Your task to perform on an android device: Go to battery settings Image 0: 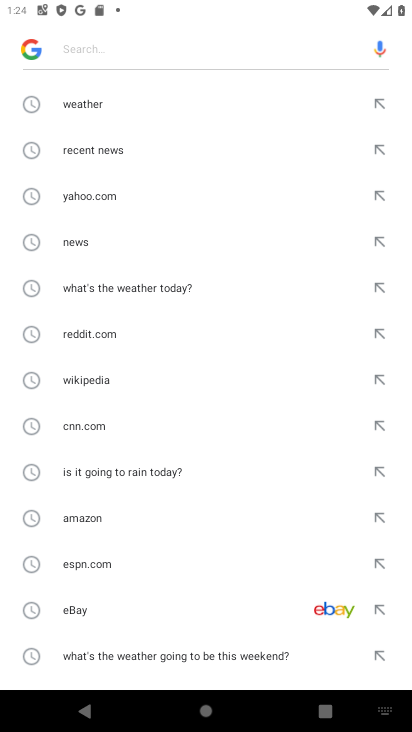
Step 0: press home button
Your task to perform on an android device: Go to battery settings Image 1: 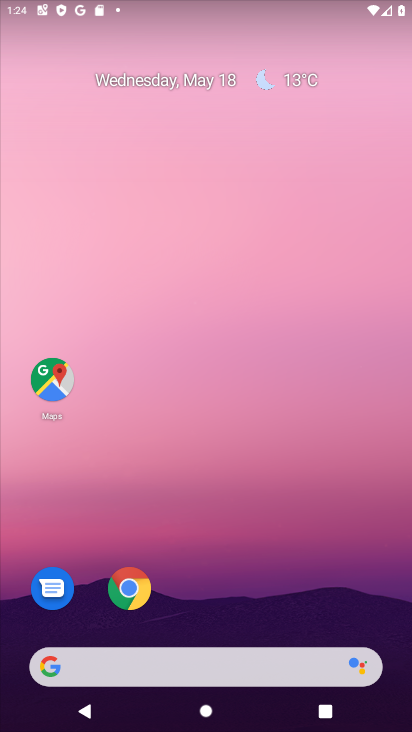
Step 1: drag from (189, 637) to (204, 34)
Your task to perform on an android device: Go to battery settings Image 2: 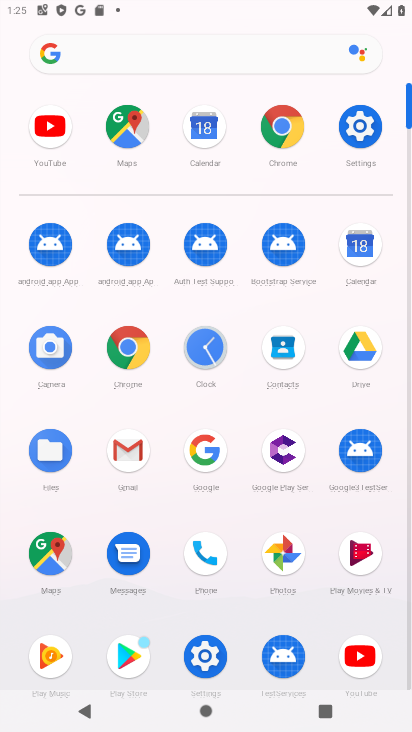
Step 2: click (368, 116)
Your task to perform on an android device: Go to battery settings Image 3: 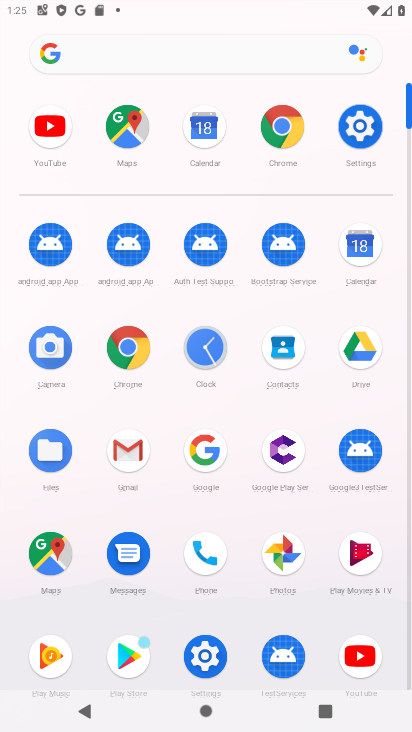
Step 3: click (368, 116)
Your task to perform on an android device: Go to battery settings Image 4: 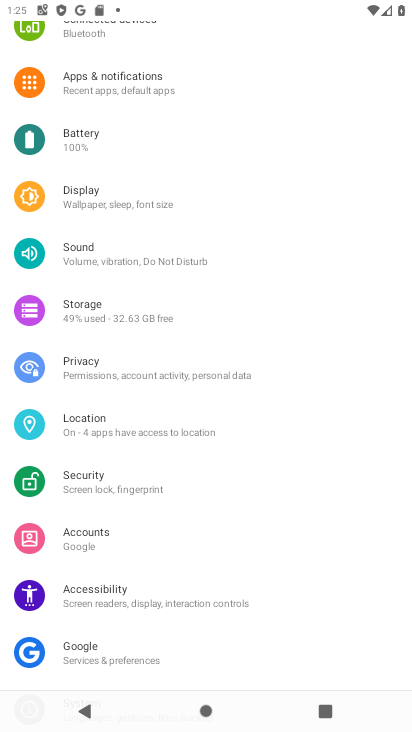
Step 4: click (89, 141)
Your task to perform on an android device: Go to battery settings Image 5: 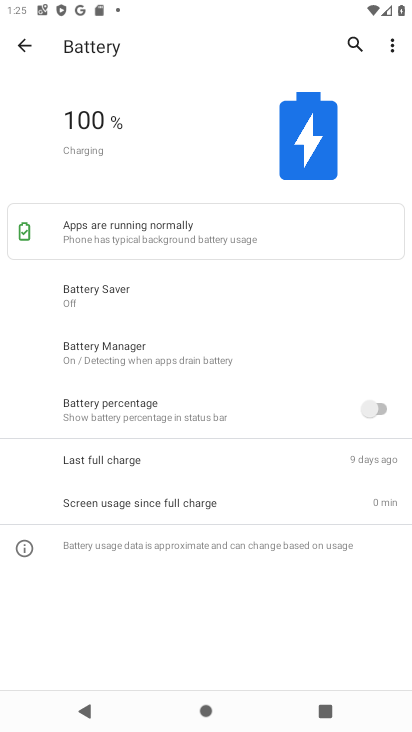
Step 5: drag from (207, 474) to (264, 128)
Your task to perform on an android device: Go to battery settings Image 6: 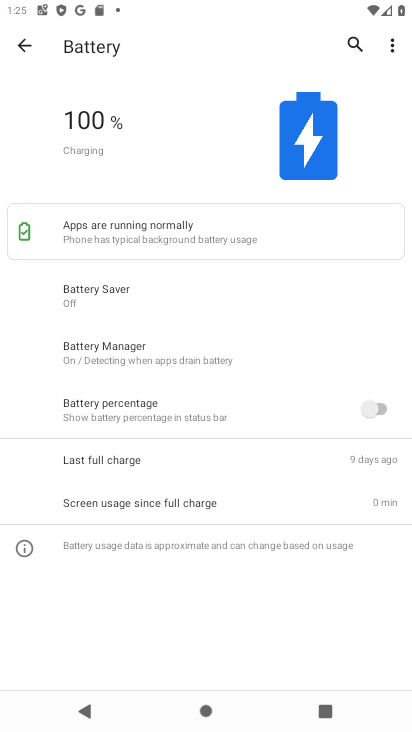
Step 6: drag from (159, 158) to (214, 476)
Your task to perform on an android device: Go to battery settings Image 7: 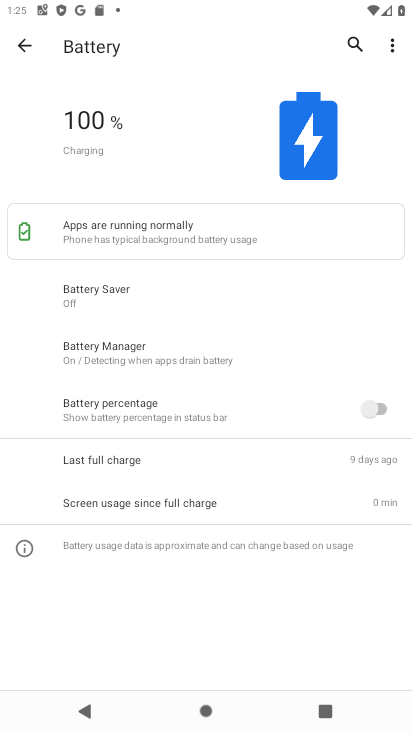
Step 7: drag from (274, 609) to (365, 151)
Your task to perform on an android device: Go to battery settings Image 8: 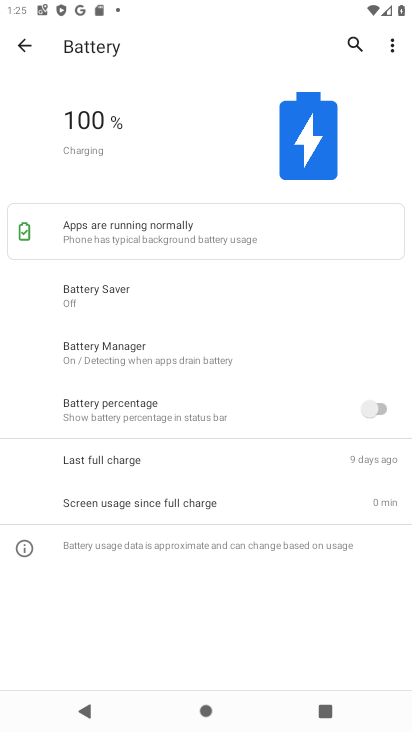
Step 8: click (390, 37)
Your task to perform on an android device: Go to battery settings Image 9: 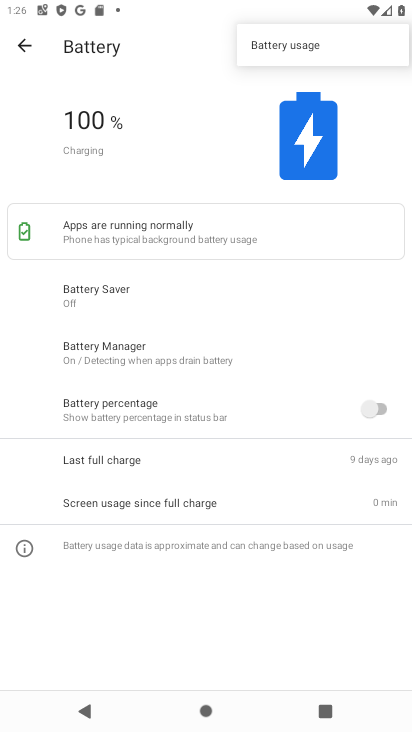
Step 9: task complete